Your task to perform on an android device: open chrome privacy settings Image 0: 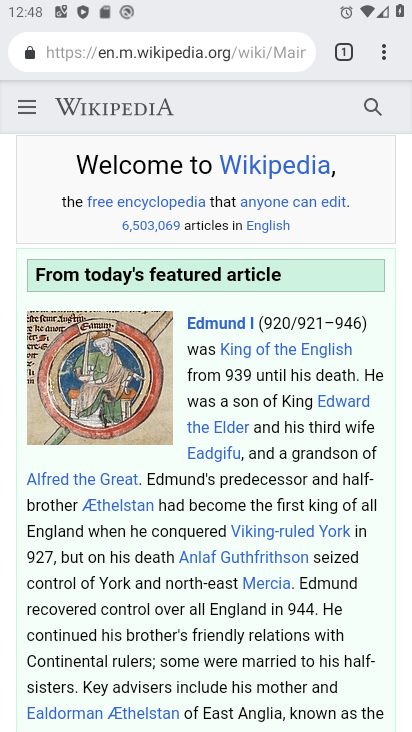
Step 0: drag from (384, 49) to (206, 621)
Your task to perform on an android device: open chrome privacy settings Image 1: 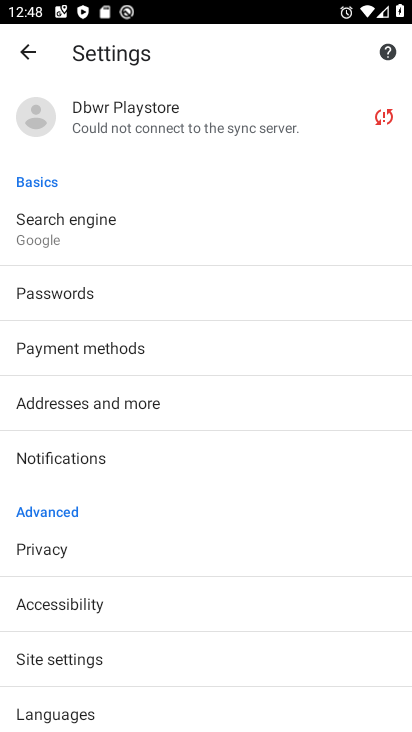
Step 1: drag from (244, 576) to (255, 155)
Your task to perform on an android device: open chrome privacy settings Image 2: 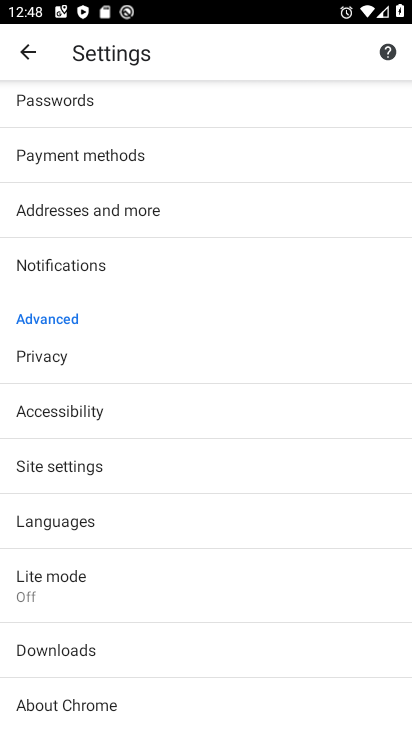
Step 2: drag from (265, 299) to (272, 698)
Your task to perform on an android device: open chrome privacy settings Image 3: 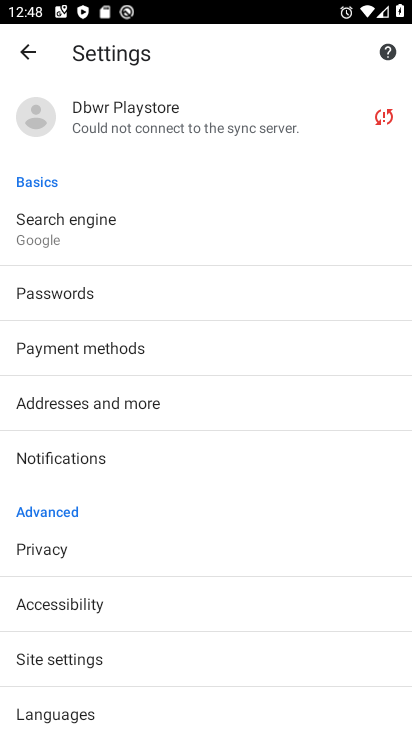
Step 3: drag from (206, 593) to (198, 168)
Your task to perform on an android device: open chrome privacy settings Image 4: 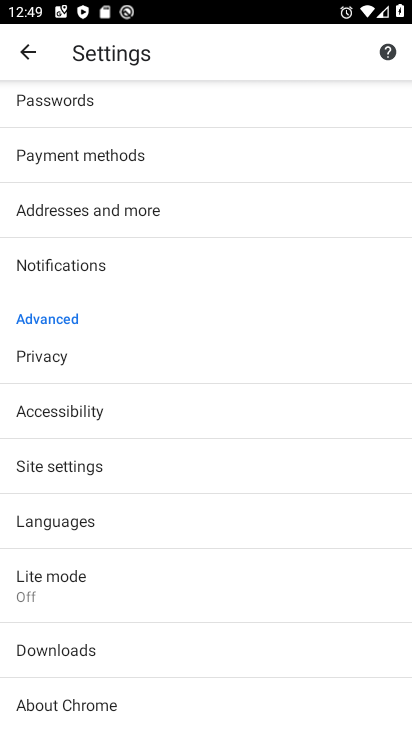
Step 4: click (103, 357)
Your task to perform on an android device: open chrome privacy settings Image 5: 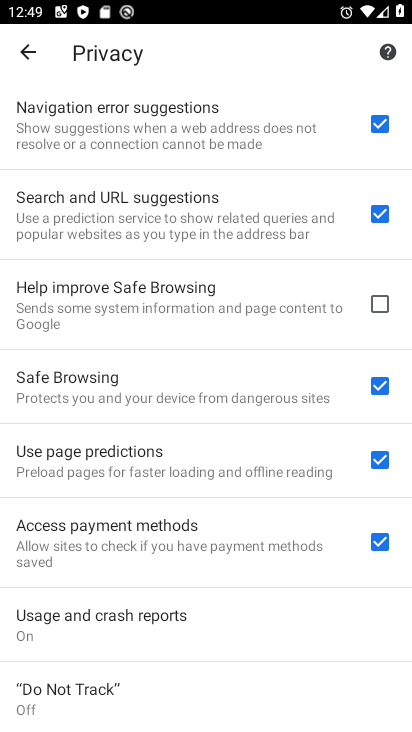
Step 5: task complete